Your task to perform on an android device: Go to Google Image 0: 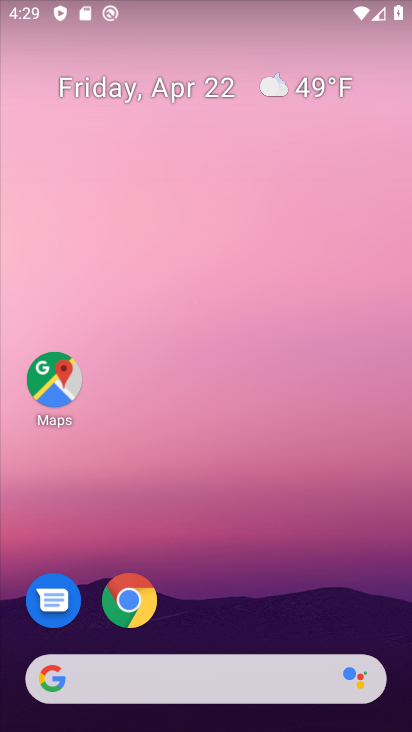
Step 0: drag from (210, 545) to (227, 24)
Your task to perform on an android device: Go to Google Image 1: 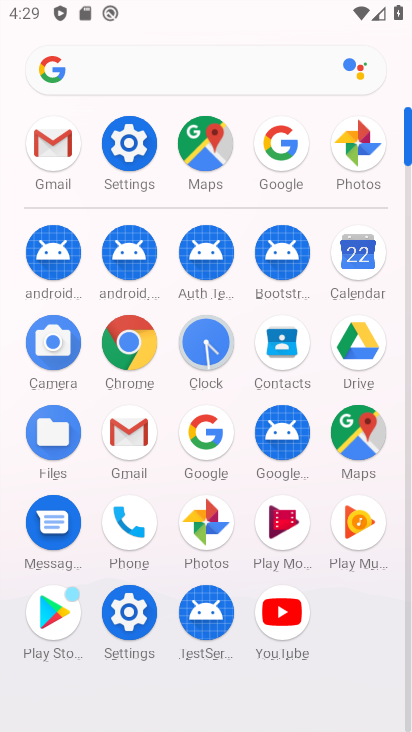
Step 1: click (278, 140)
Your task to perform on an android device: Go to Google Image 2: 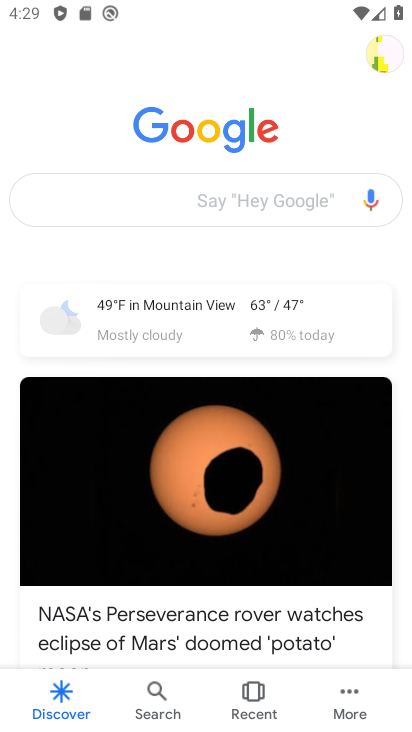
Step 2: task complete